Your task to perform on an android device: delete location history Image 0: 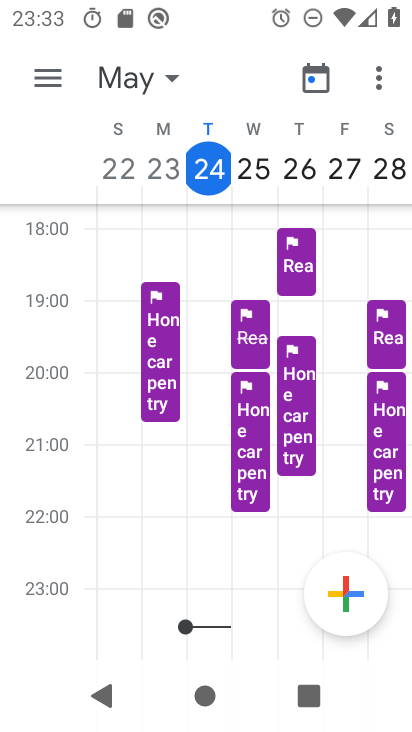
Step 0: press home button
Your task to perform on an android device: delete location history Image 1: 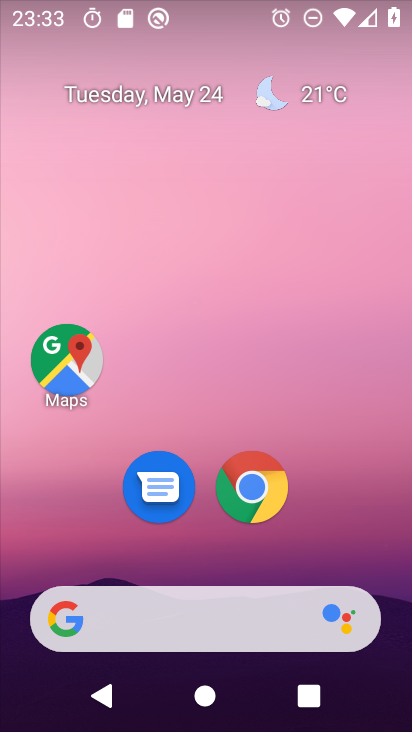
Step 1: click (74, 360)
Your task to perform on an android device: delete location history Image 2: 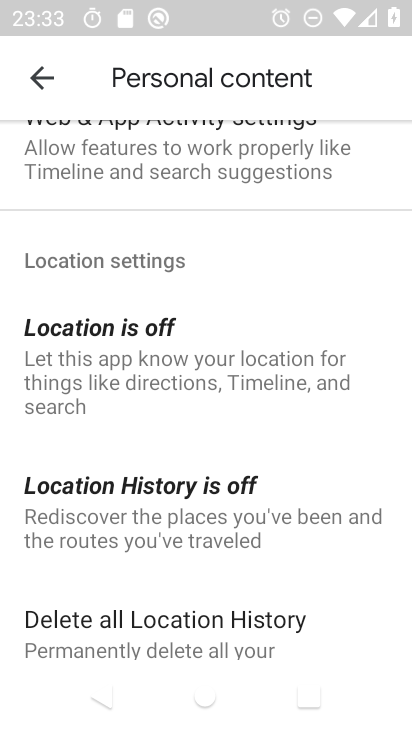
Step 2: click (147, 631)
Your task to perform on an android device: delete location history Image 3: 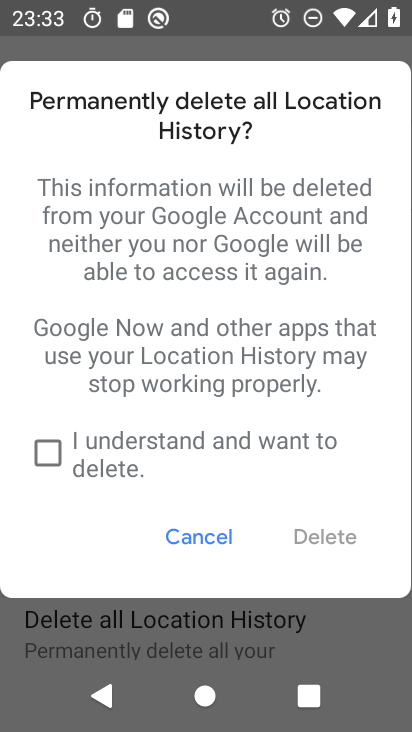
Step 3: click (37, 455)
Your task to perform on an android device: delete location history Image 4: 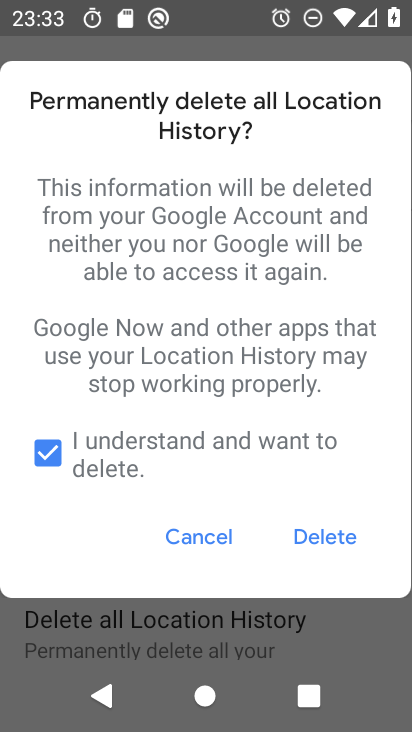
Step 4: click (310, 537)
Your task to perform on an android device: delete location history Image 5: 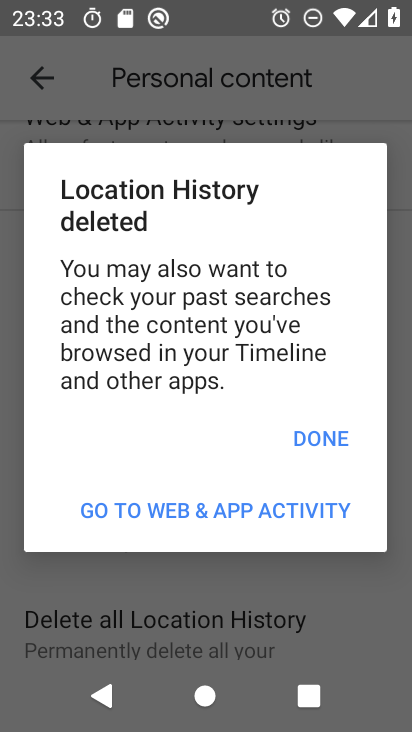
Step 5: click (321, 434)
Your task to perform on an android device: delete location history Image 6: 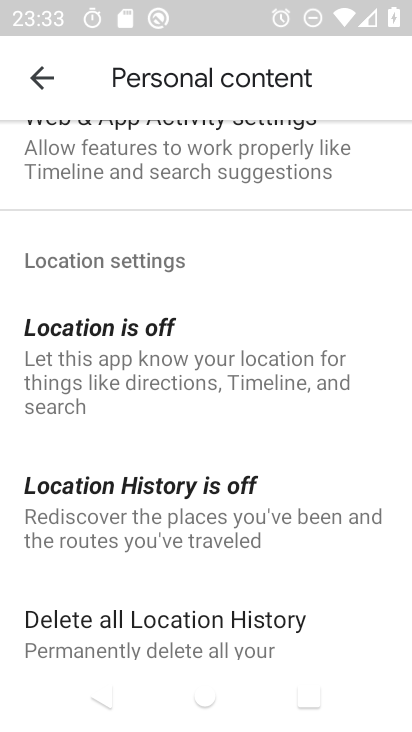
Step 6: task complete